Your task to perform on an android device: snooze an email in the gmail app Image 0: 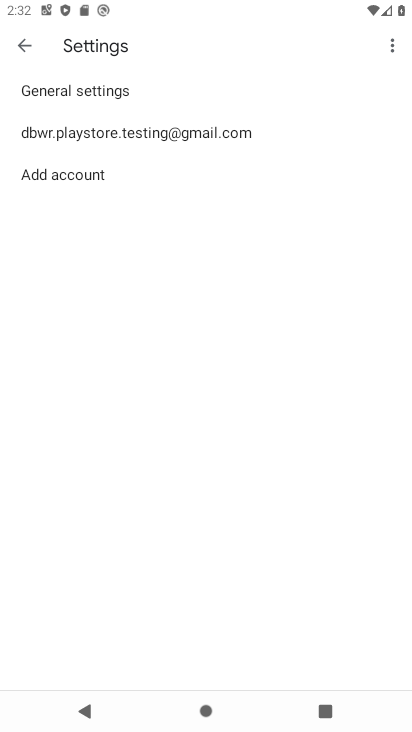
Step 0: press home button
Your task to perform on an android device: snooze an email in the gmail app Image 1: 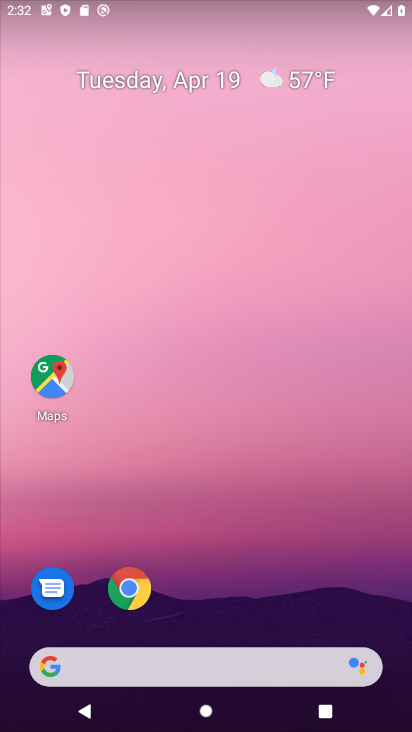
Step 1: drag from (304, 551) to (346, 78)
Your task to perform on an android device: snooze an email in the gmail app Image 2: 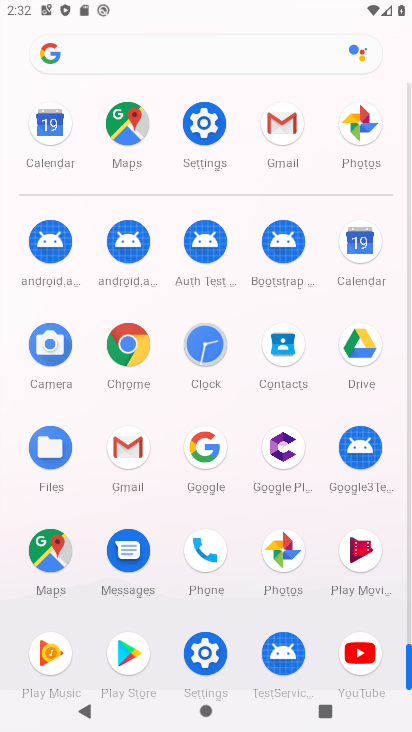
Step 2: click (281, 128)
Your task to perform on an android device: snooze an email in the gmail app Image 3: 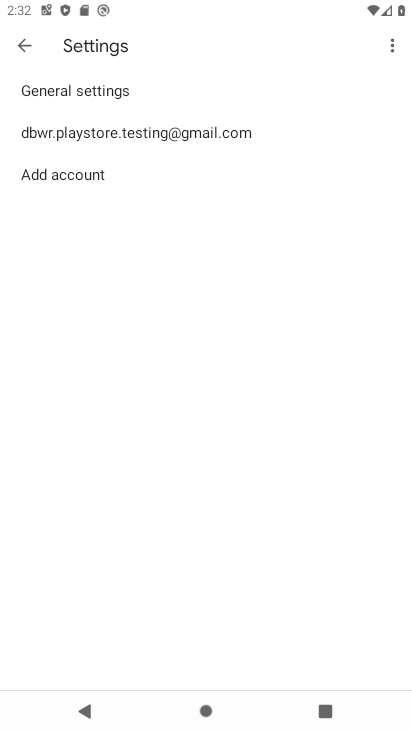
Step 3: click (21, 42)
Your task to perform on an android device: snooze an email in the gmail app Image 4: 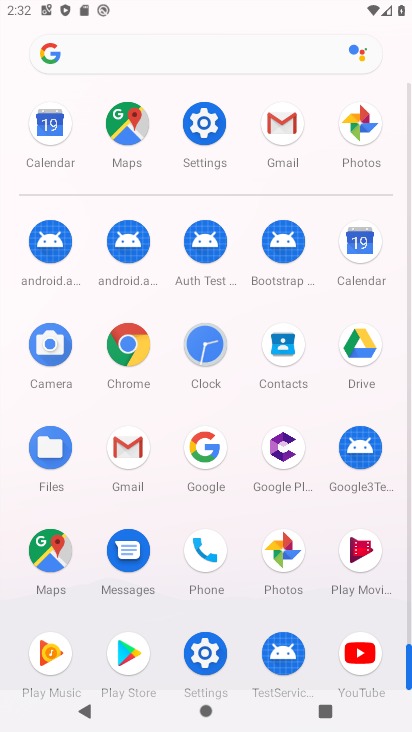
Step 4: click (284, 122)
Your task to perform on an android device: snooze an email in the gmail app Image 5: 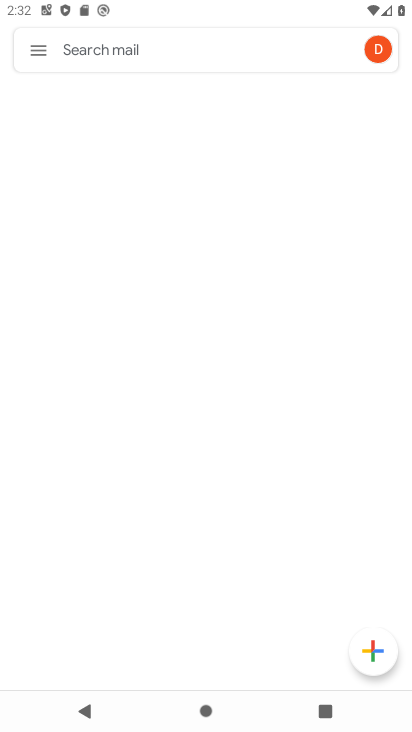
Step 5: click (262, 131)
Your task to perform on an android device: snooze an email in the gmail app Image 6: 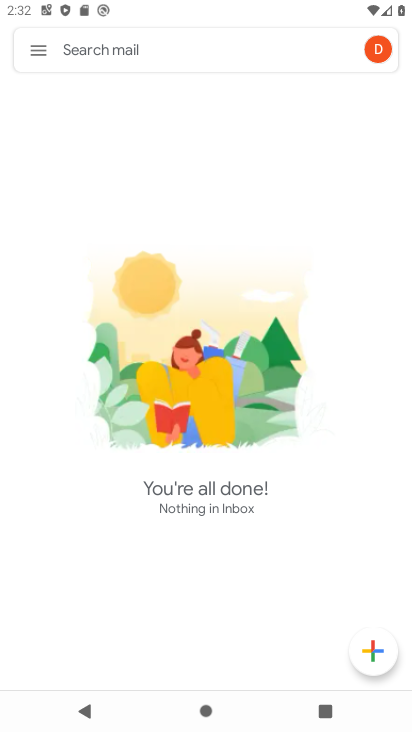
Step 6: click (42, 50)
Your task to perform on an android device: snooze an email in the gmail app Image 7: 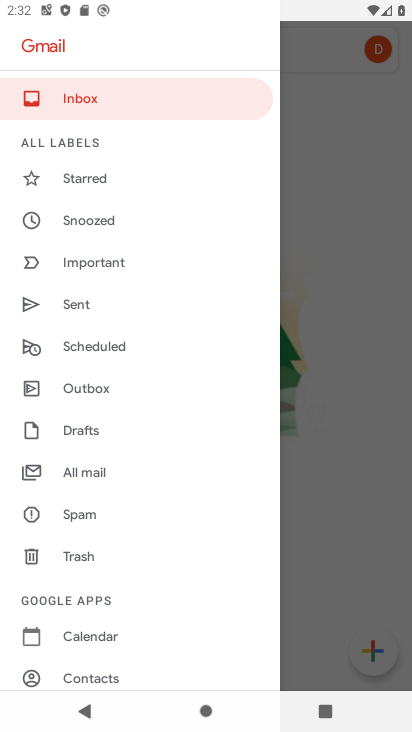
Step 7: click (136, 469)
Your task to perform on an android device: snooze an email in the gmail app Image 8: 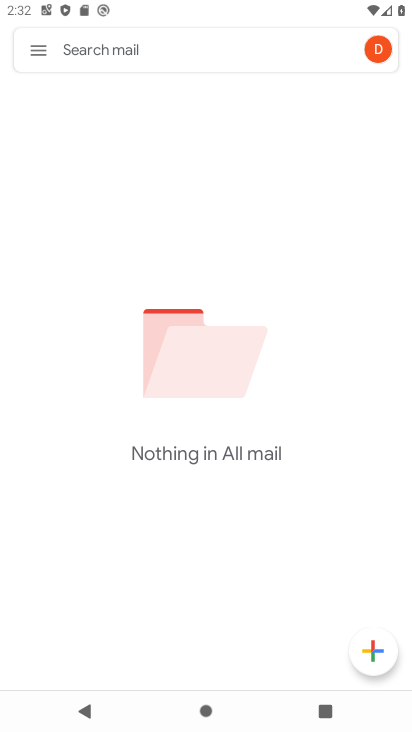
Step 8: task complete